Your task to perform on an android device: turn on airplane mode Image 0: 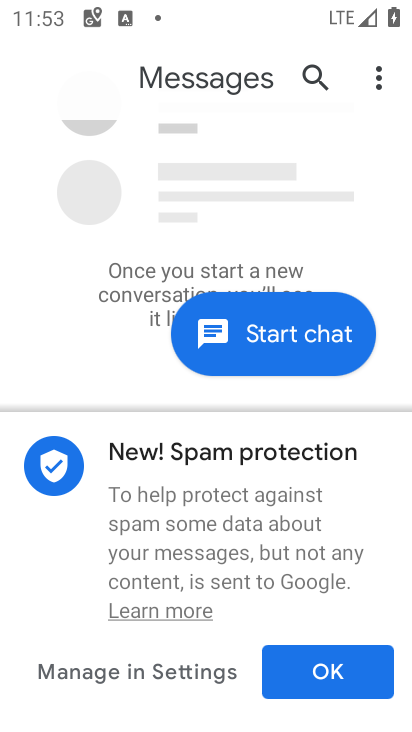
Step 0: press home button
Your task to perform on an android device: turn on airplane mode Image 1: 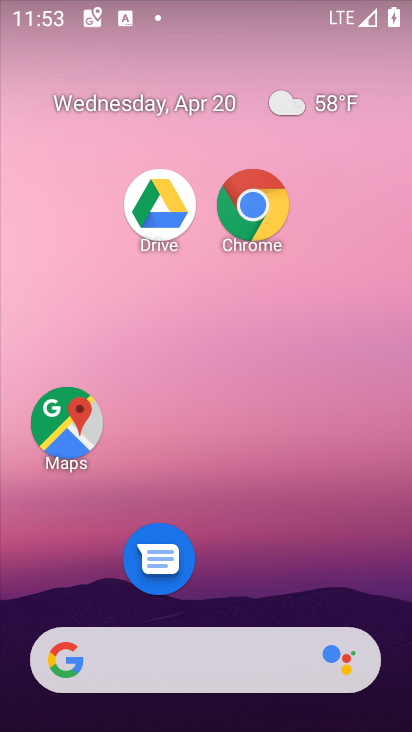
Step 1: drag from (228, 486) to (258, 3)
Your task to perform on an android device: turn on airplane mode Image 2: 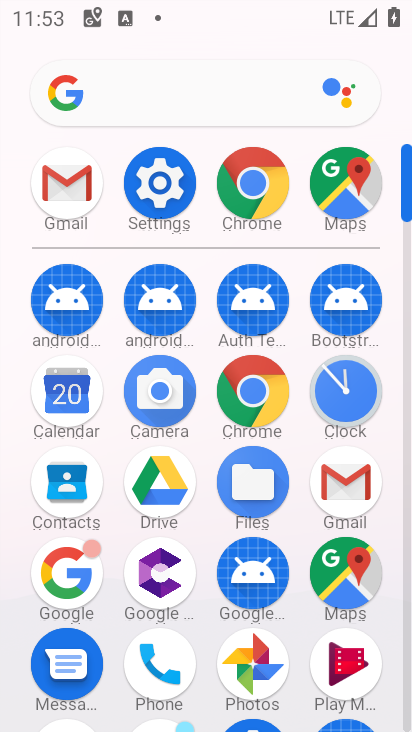
Step 2: drag from (192, 633) to (240, 112)
Your task to perform on an android device: turn on airplane mode Image 3: 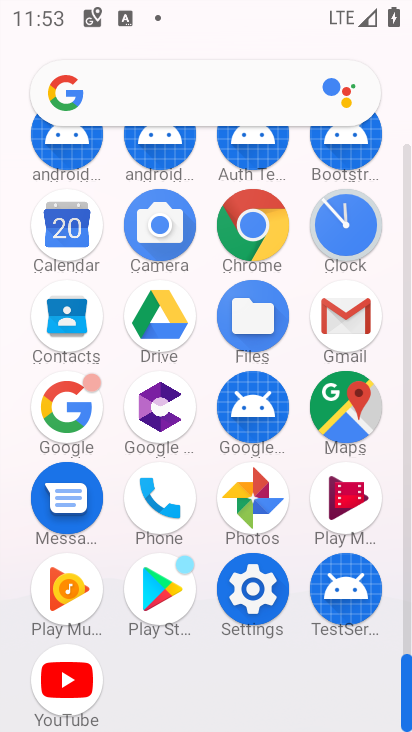
Step 3: click (244, 583)
Your task to perform on an android device: turn on airplane mode Image 4: 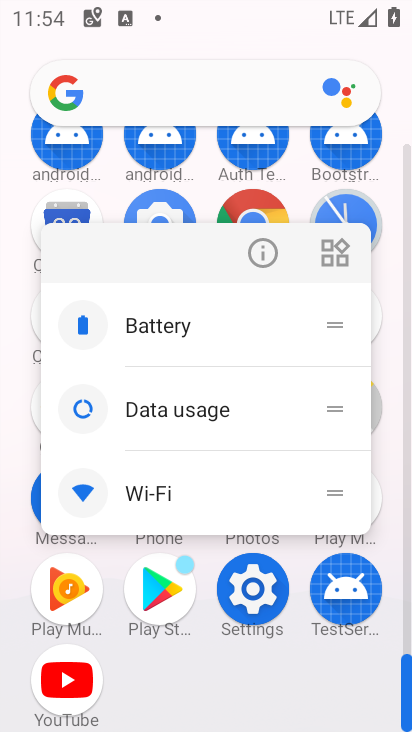
Step 4: click (286, 665)
Your task to perform on an android device: turn on airplane mode Image 5: 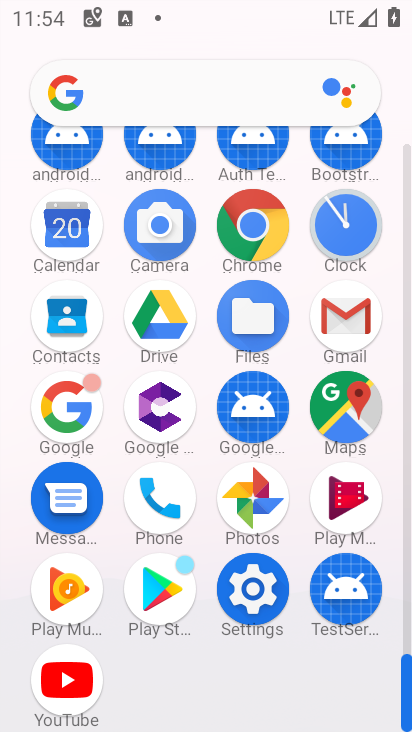
Step 5: click (259, 598)
Your task to perform on an android device: turn on airplane mode Image 6: 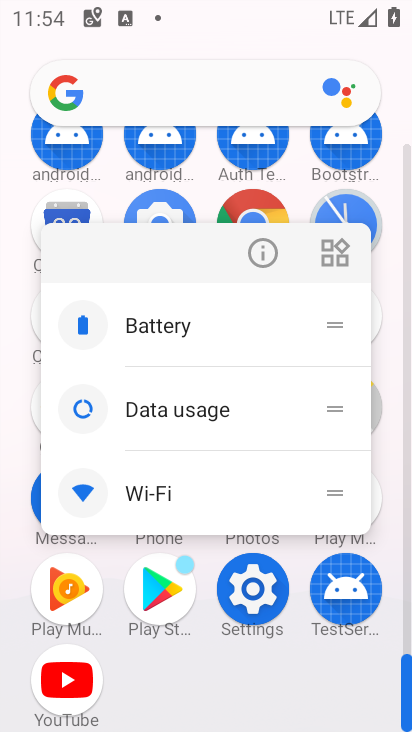
Step 6: click (255, 580)
Your task to perform on an android device: turn on airplane mode Image 7: 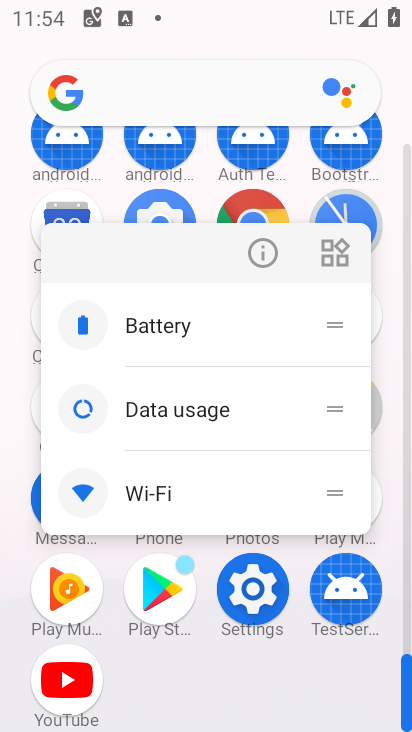
Step 7: click (260, 583)
Your task to perform on an android device: turn on airplane mode Image 8: 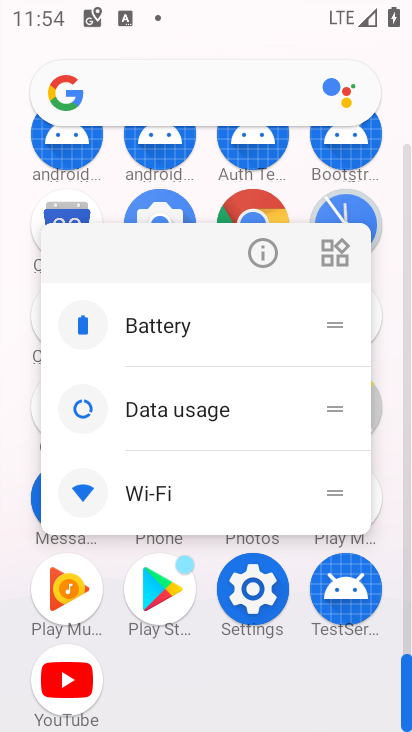
Step 8: click (260, 583)
Your task to perform on an android device: turn on airplane mode Image 9: 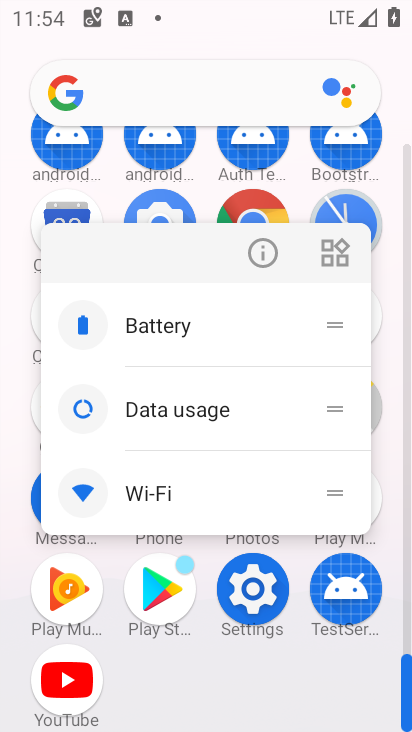
Step 9: click (251, 605)
Your task to perform on an android device: turn on airplane mode Image 10: 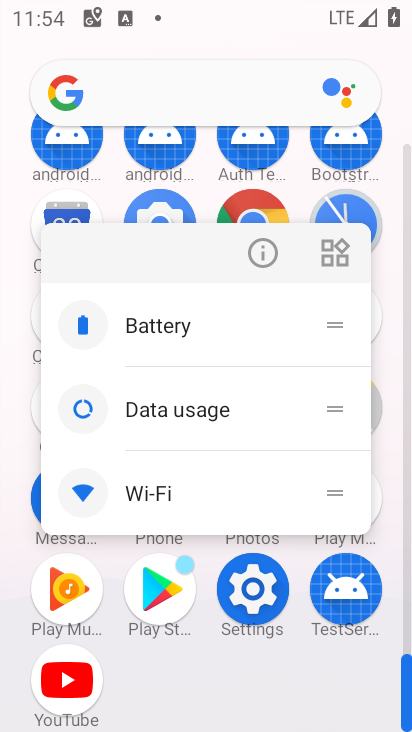
Step 10: drag from (277, 621) to (253, 594)
Your task to perform on an android device: turn on airplane mode Image 11: 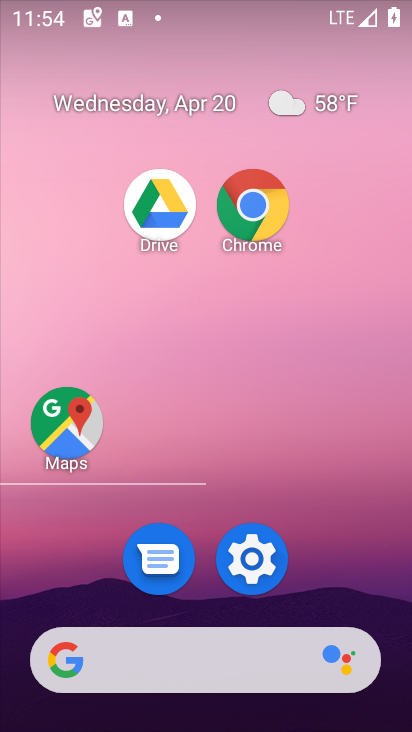
Step 11: click (247, 578)
Your task to perform on an android device: turn on airplane mode Image 12: 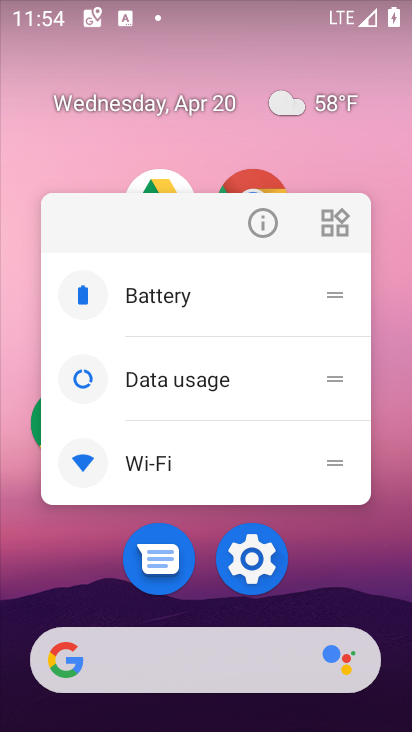
Step 12: click (247, 578)
Your task to perform on an android device: turn on airplane mode Image 13: 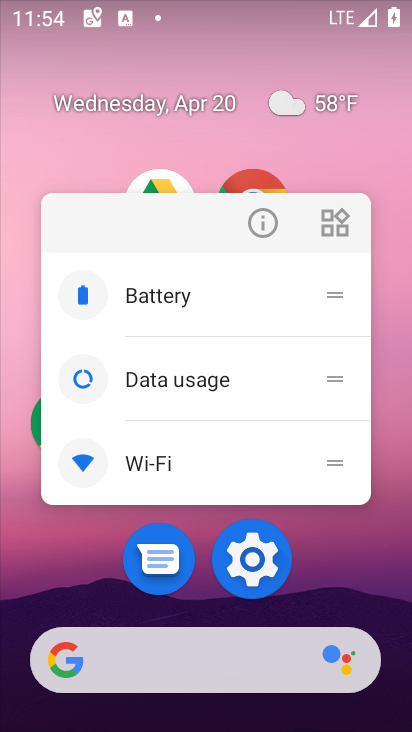
Step 13: click (247, 578)
Your task to perform on an android device: turn on airplane mode Image 14: 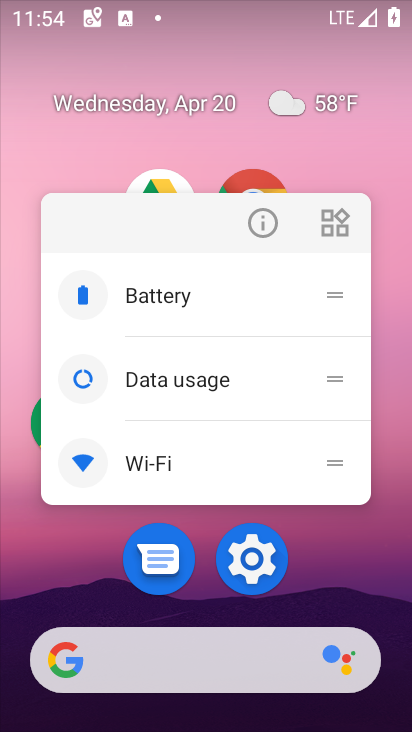
Step 14: drag from (242, 3) to (227, 722)
Your task to perform on an android device: turn on airplane mode Image 15: 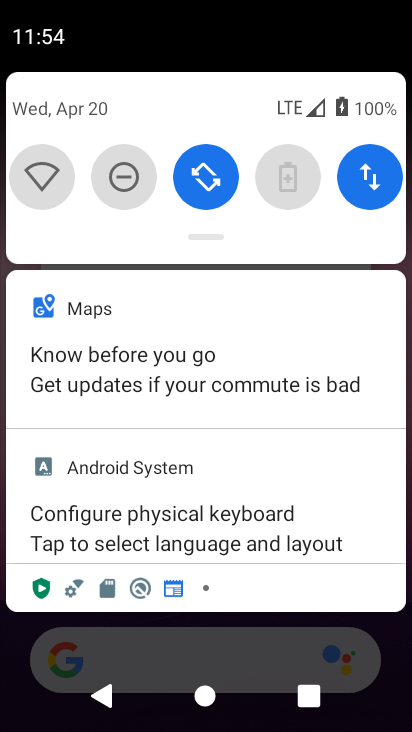
Step 15: drag from (304, 236) to (370, 680)
Your task to perform on an android device: turn on airplane mode Image 16: 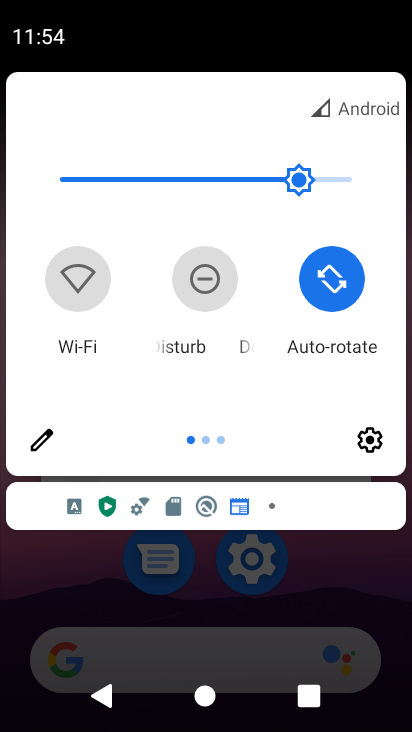
Step 16: drag from (304, 390) to (111, 418)
Your task to perform on an android device: turn on airplane mode Image 17: 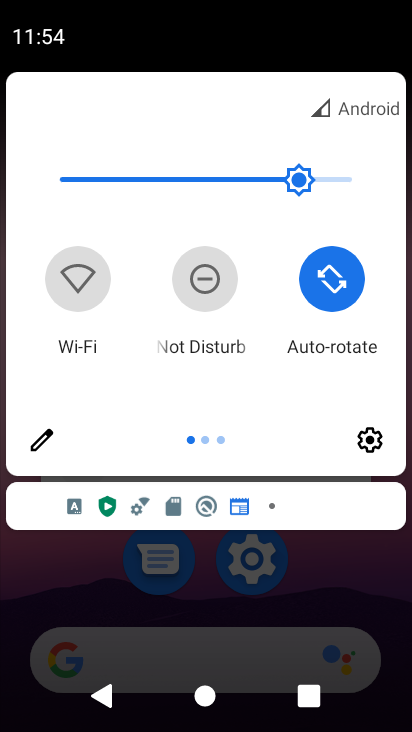
Step 17: drag from (398, 364) to (73, 397)
Your task to perform on an android device: turn on airplane mode Image 18: 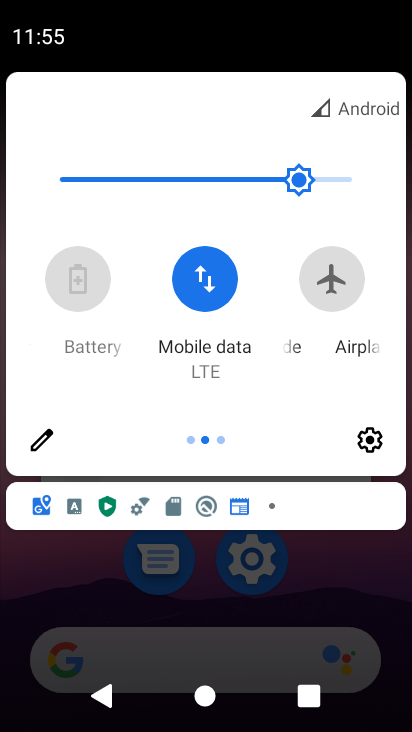
Step 18: click (336, 282)
Your task to perform on an android device: turn on airplane mode Image 19: 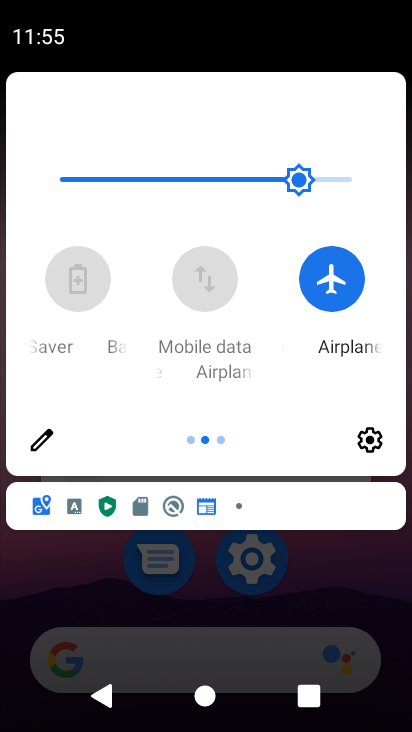
Step 19: task complete